Your task to perform on an android device: Clear all items from cart on ebay.com. Image 0: 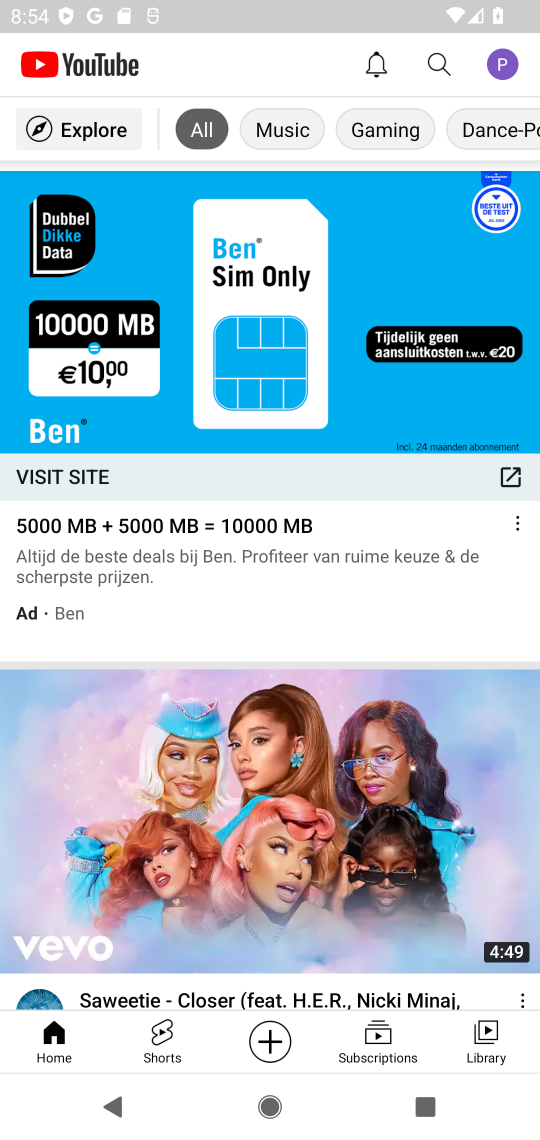
Step 0: press home button
Your task to perform on an android device: Clear all items from cart on ebay.com. Image 1: 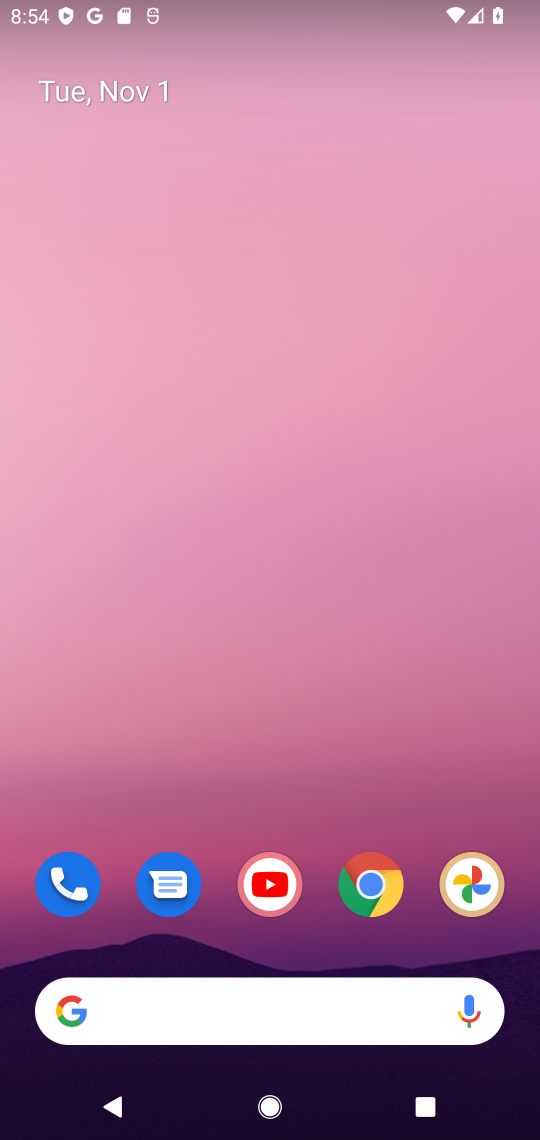
Step 1: click (361, 879)
Your task to perform on an android device: Clear all items from cart on ebay.com. Image 2: 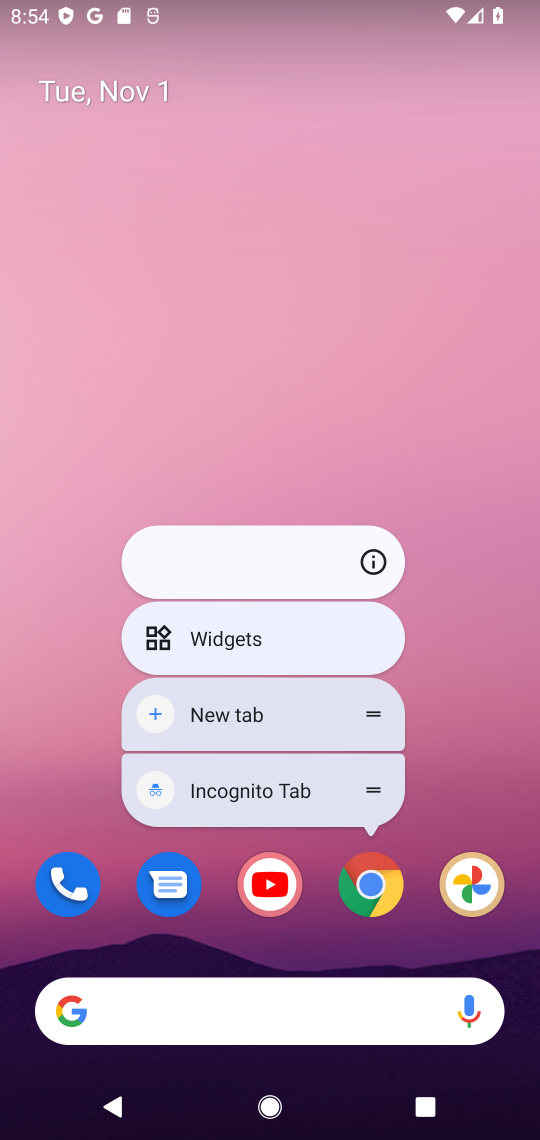
Step 2: click (372, 878)
Your task to perform on an android device: Clear all items from cart on ebay.com. Image 3: 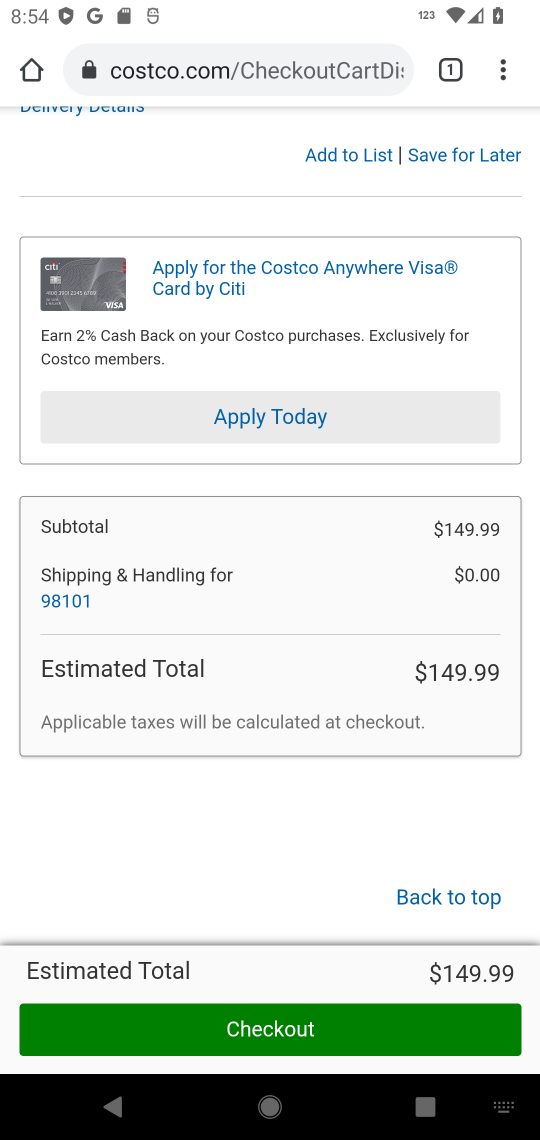
Step 3: click (290, 76)
Your task to perform on an android device: Clear all items from cart on ebay.com. Image 4: 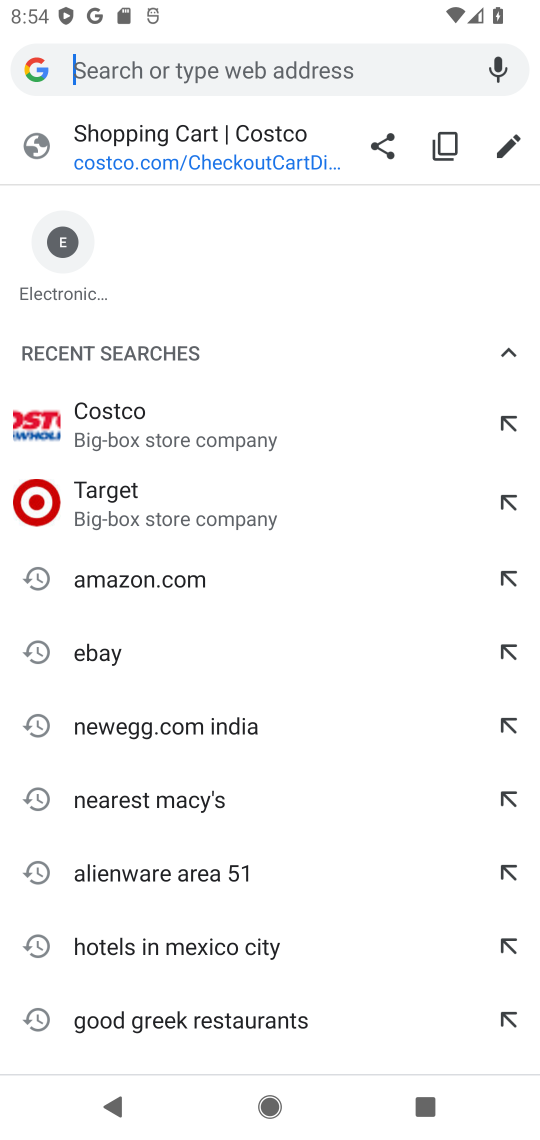
Step 4: type "ebay.com"
Your task to perform on an android device: Clear all items from cart on ebay.com. Image 5: 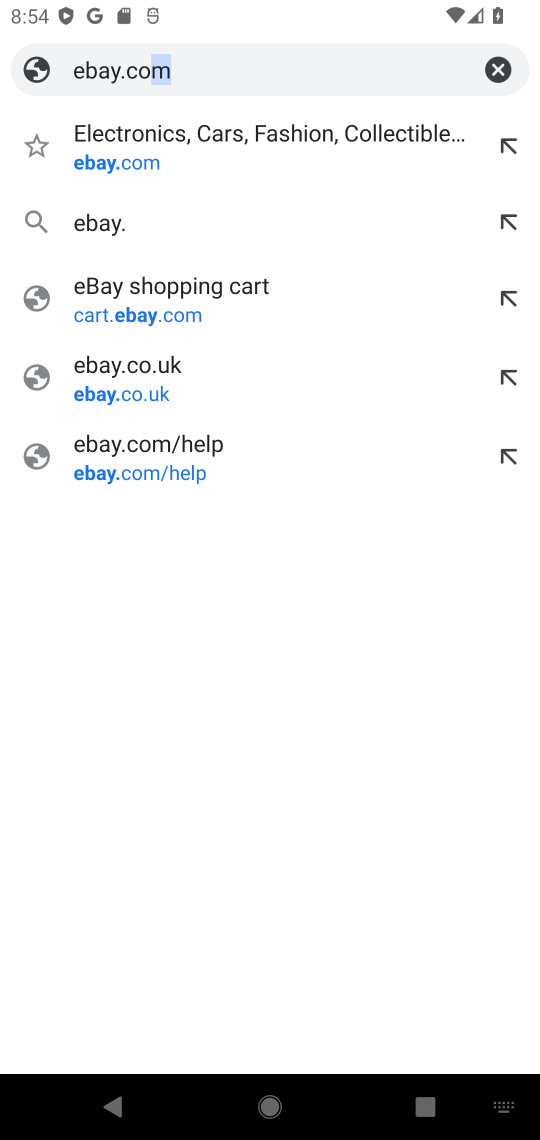
Step 5: press enter
Your task to perform on an android device: Clear all items from cart on ebay.com. Image 6: 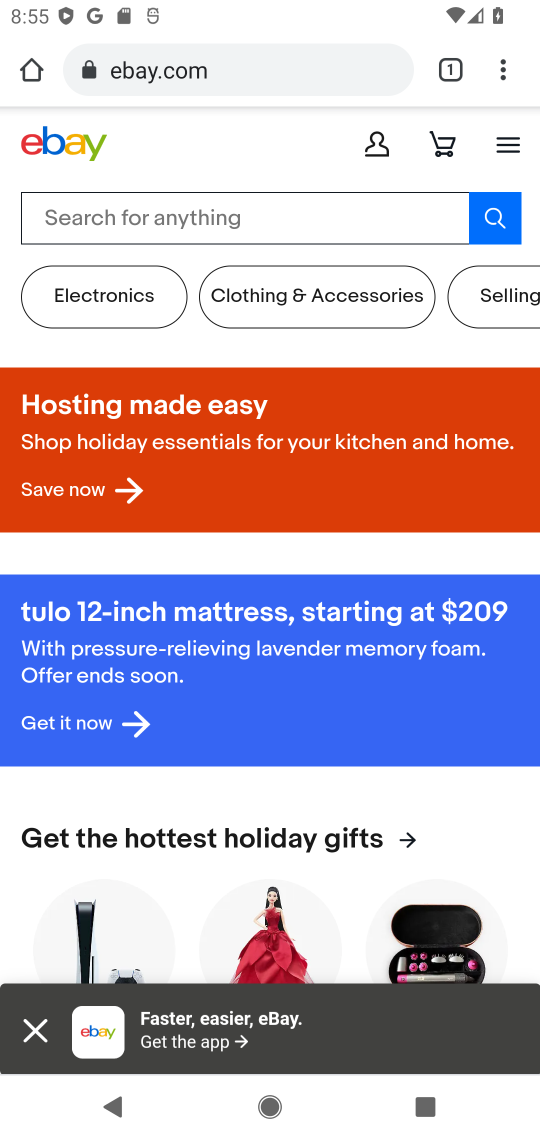
Step 6: click (445, 142)
Your task to perform on an android device: Clear all items from cart on ebay.com. Image 7: 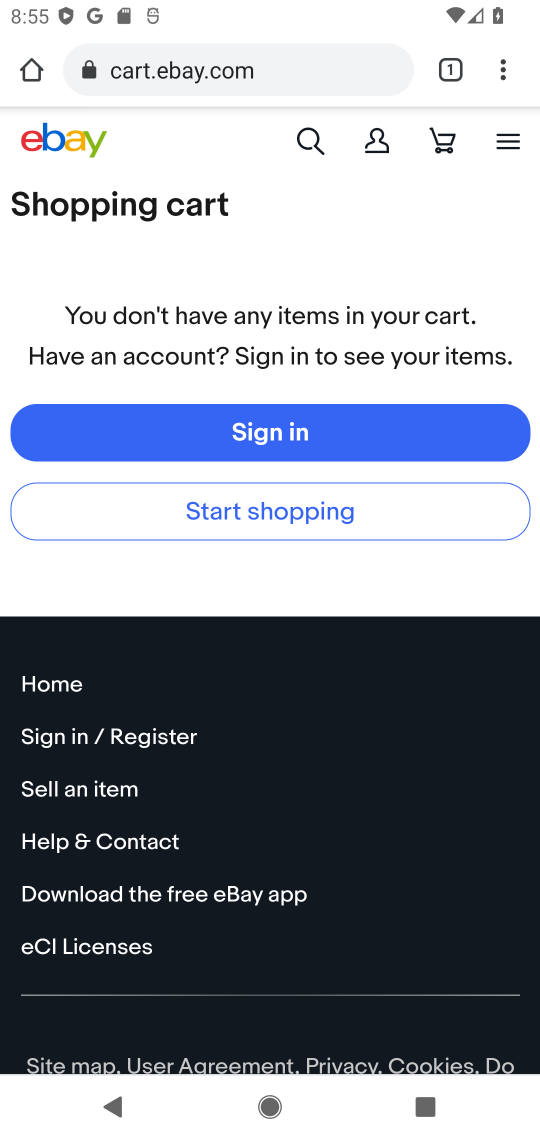
Step 7: click (306, 143)
Your task to perform on an android device: Clear all items from cart on ebay.com. Image 8: 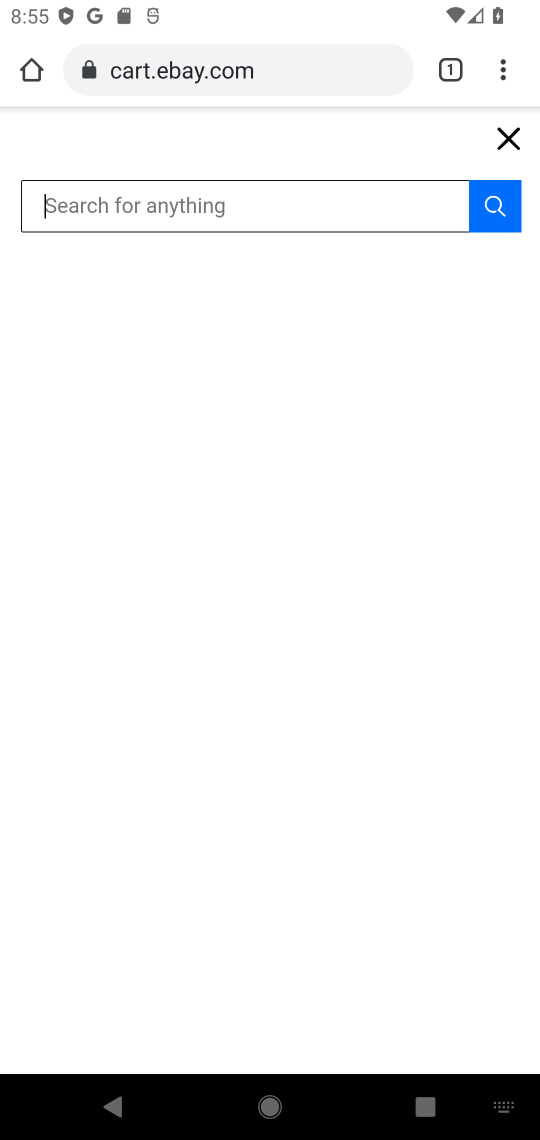
Step 8: task complete